Your task to perform on an android device: refresh tabs in the chrome app Image 0: 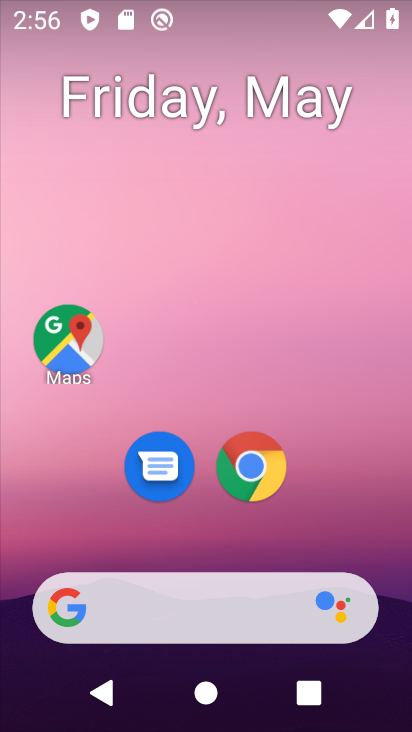
Step 0: click (255, 464)
Your task to perform on an android device: refresh tabs in the chrome app Image 1: 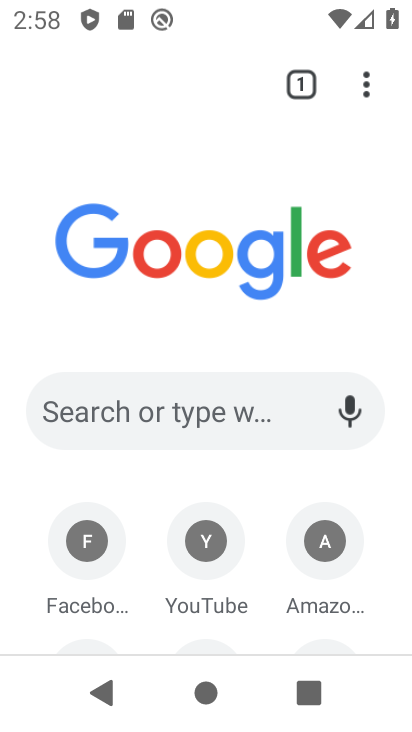
Step 1: click (367, 82)
Your task to perform on an android device: refresh tabs in the chrome app Image 2: 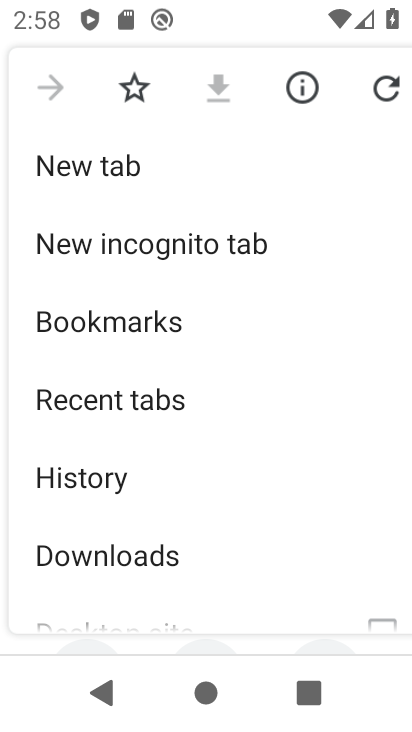
Step 2: click (390, 86)
Your task to perform on an android device: refresh tabs in the chrome app Image 3: 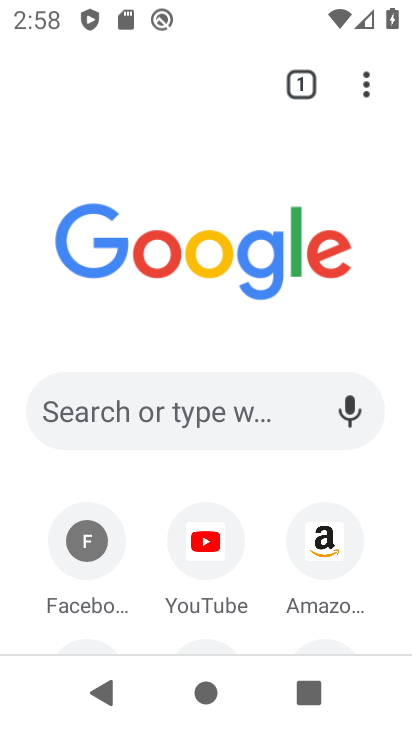
Step 3: task complete